Your task to perform on an android device: turn notification dots off Image 0: 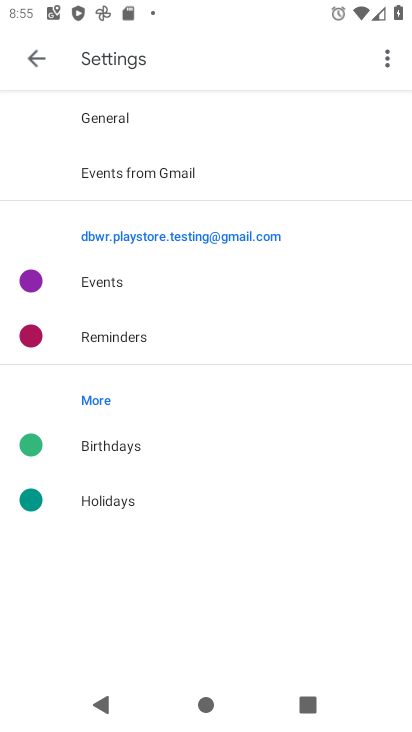
Step 0: press home button
Your task to perform on an android device: turn notification dots off Image 1: 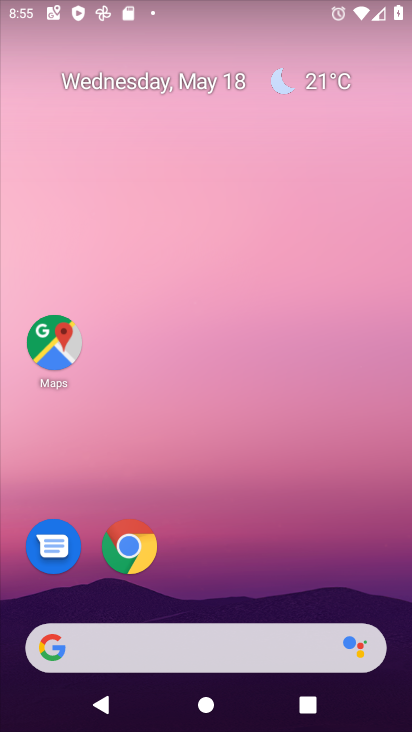
Step 1: drag from (309, 593) to (262, 30)
Your task to perform on an android device: turn notification dots off Image 2: 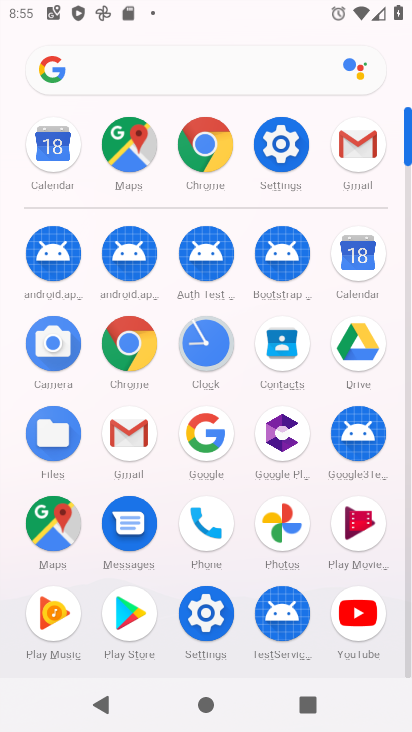
Step 2: click (218, 617)
Your task to perform on an android device: turn notification dots off Image 3: 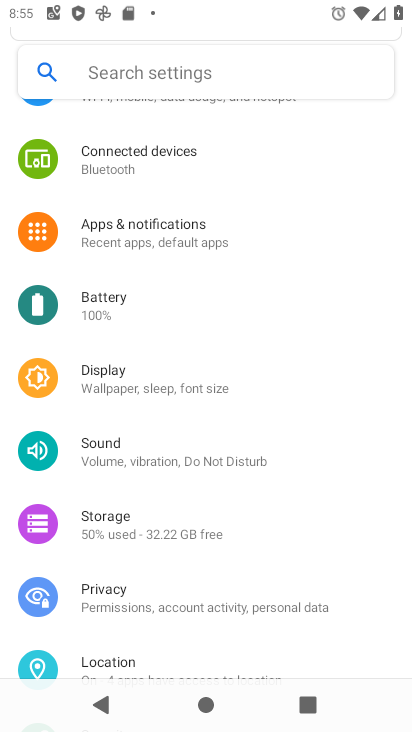
Step 3: click (174, 238)
Your task to perform on an android device: turn notification dots off Image 4: 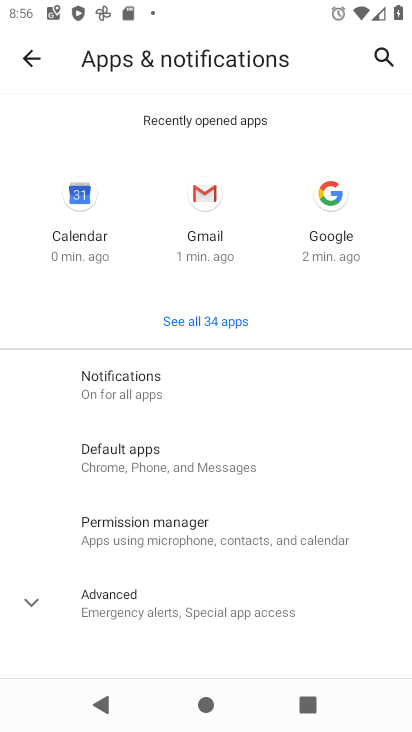
Step 4: click (184, 373)
Your task to perform on an android device: turn notification dots off Image 5: 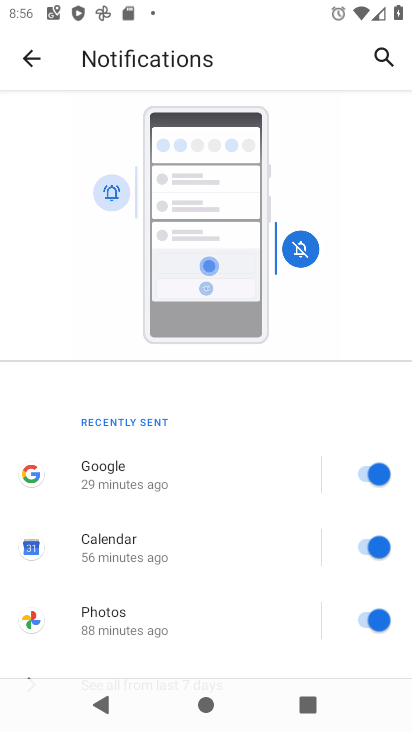
Step 5: drag from (169, 606) to (204, 255)
Your task to perform on an android device: turn notification dots off Image 6: 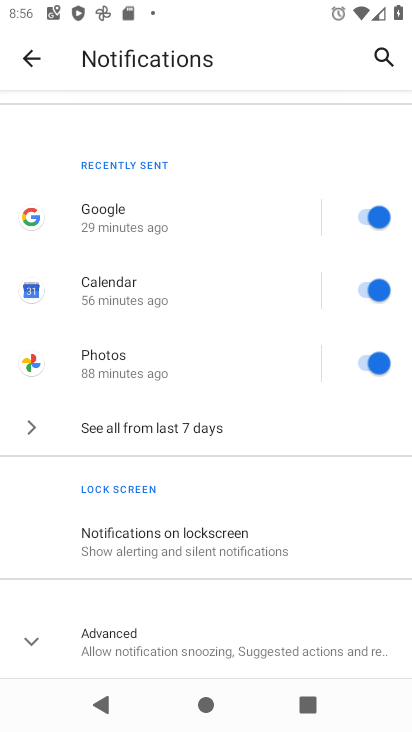
Step 6: click (110, 639)
Your task to perform on an android device: turn notification dots off Image 7: 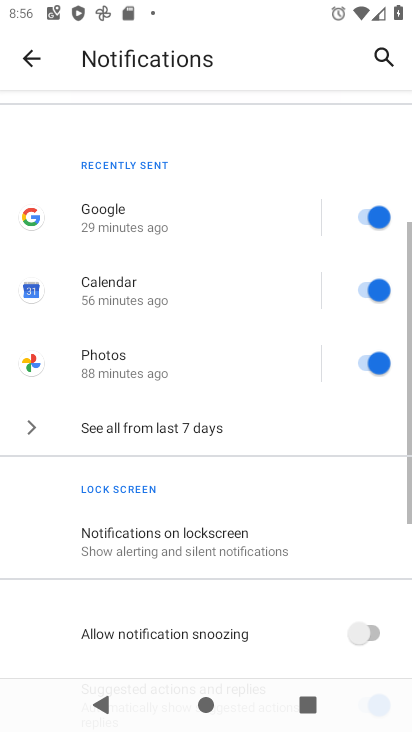
Step 7: task complete